Your task to perform on an android device: turn on notifications settings in the gmail app Image 0: 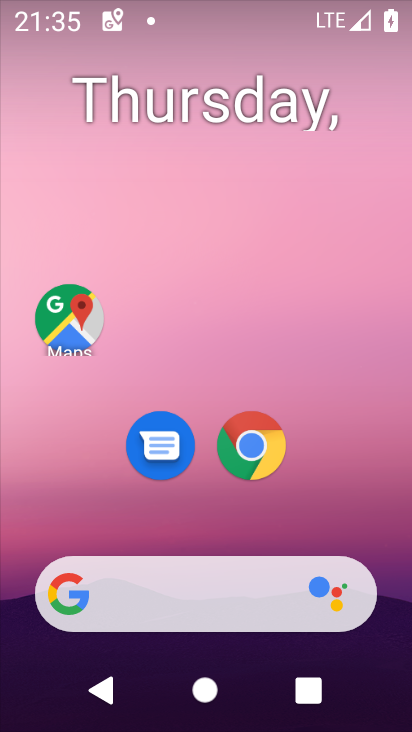
Step 0: drag from (182, 539) to (300, 50)
Your task to perform on an android device: turn on notifications settings in the gmail app Image 1: 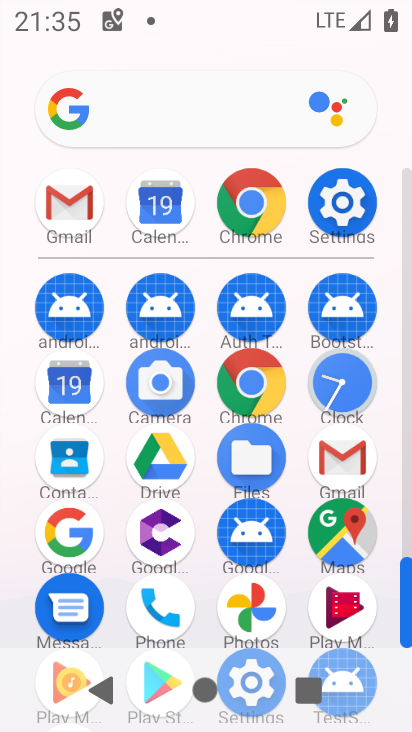
Step 1: click (349, 437)
Your task to perform on an android device: turn on notifications settings in the gmail app Image 2: 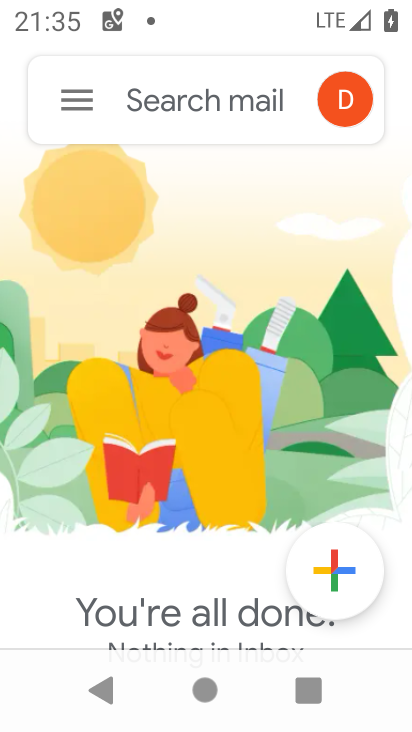
Step 2: click (76, 118)
Your task to perform on an android device: turn on notifications settings in the gmail app Image 3: 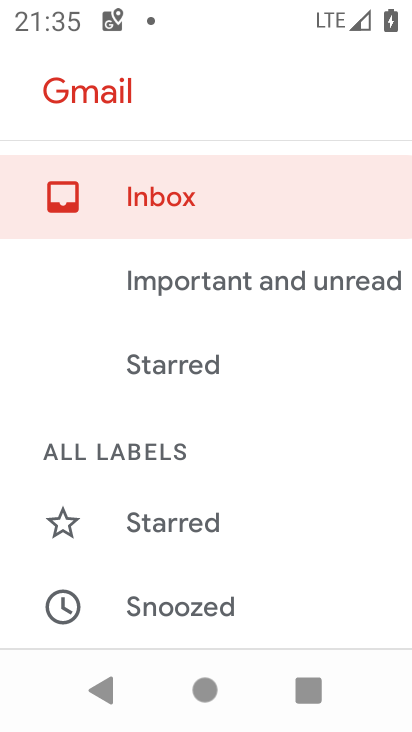
Step 3: drag from (166, 583) to (209, 301)
Your task to perform on an android device: turn on notifications settings in the gmail app Image 4: 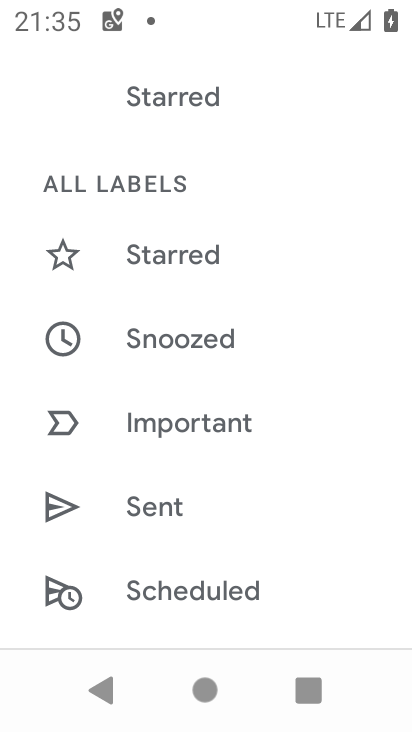
Step 4: drag from (213, 515) to (217, 47)
Your task to perform on an android device: turn on notifications settings in the gmail app Image 5: 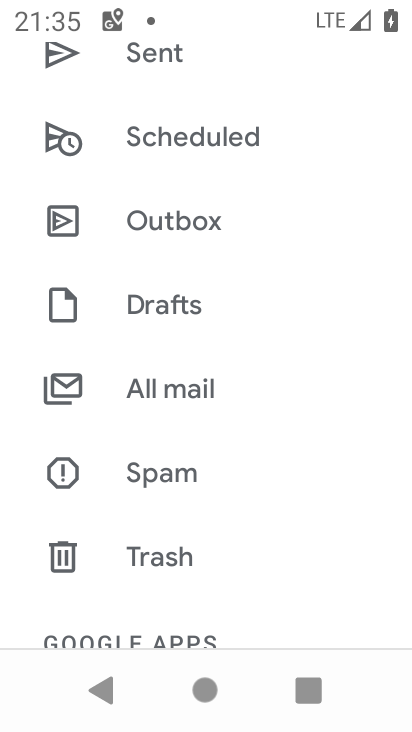
Step 5: drag from (186, 552) to (255, 80)
Your task to perform on an android device: turn on notifications settings in the gmail app Image 6: 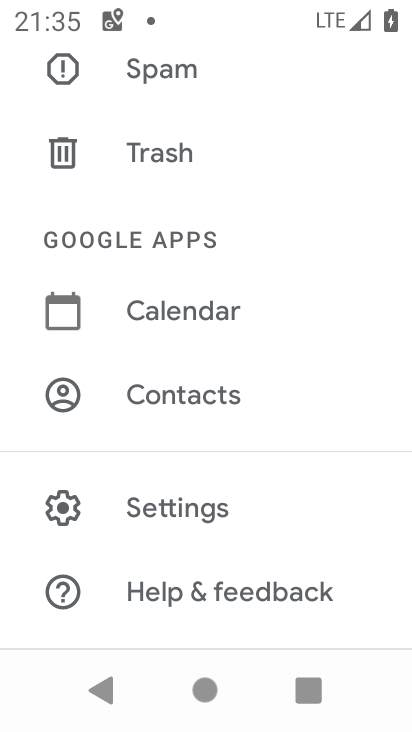
Step 6: click (176, 509)
Your task to perform on an android device: turn on notifications settings in the gmail app Image 7: 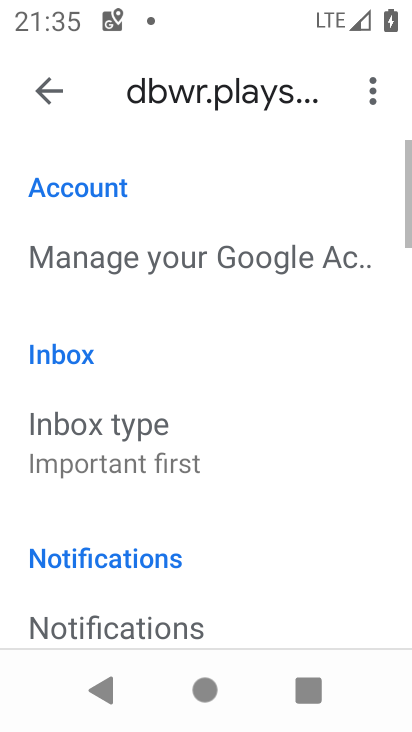
Step 7: drag from (205, 558) to (266, 141)
Your task to perform on an android device: turn on notifications settings in the gmail app Image 8: 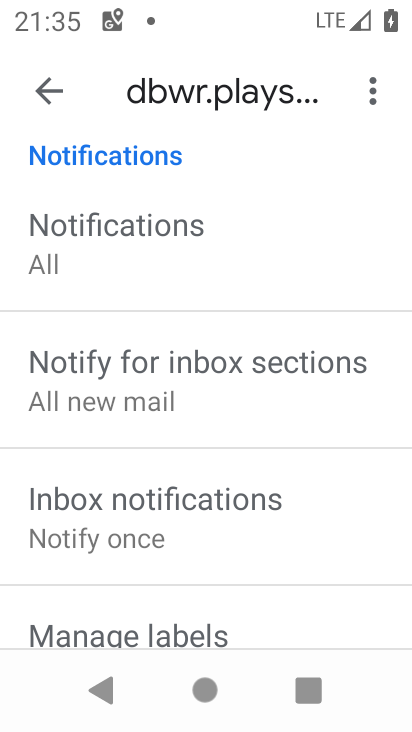
Step 8: drag from (192, 244) to (409, 136)
Your task to perform on an android device: turn on notifications settings in the gmail app Image 9: 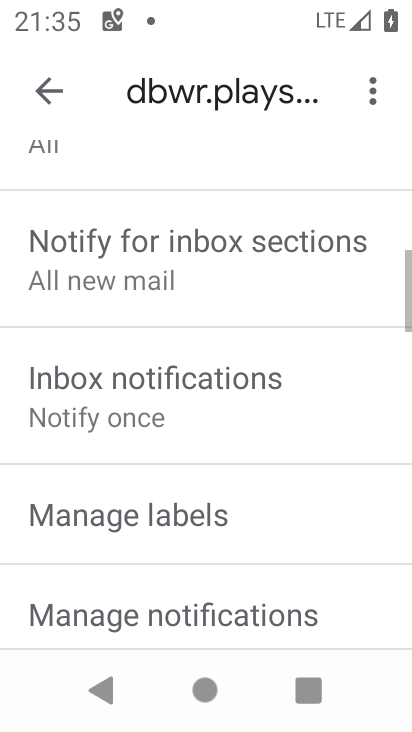
Step 9: click (163, 493)
Your task to perform on an android device: turn on notifications settings in the gmail app Image 10: 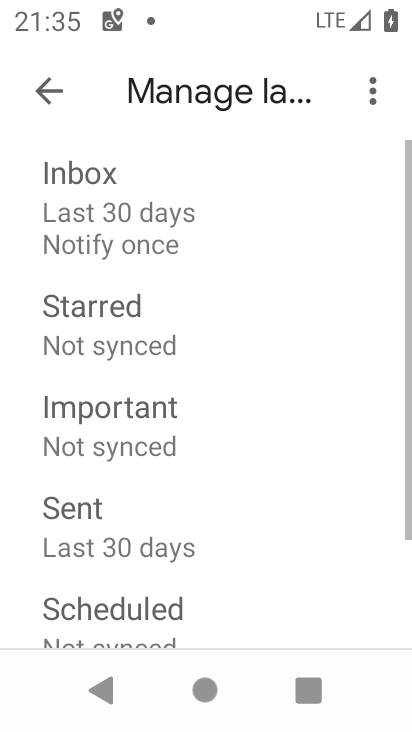
Step 10: click (58, 100)
Your task to perform on an android device: turn on notifications settings in the gmail app Image 11: 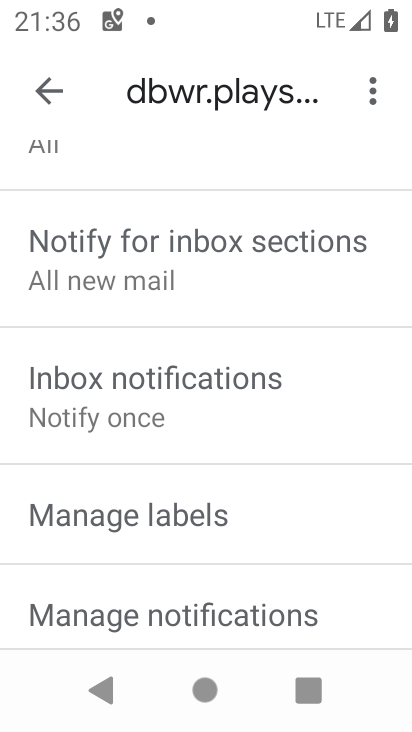
Step 11: click (138, 604)
Your task to perform on an android device: turn on notifications settings in the gmail app Image 12: 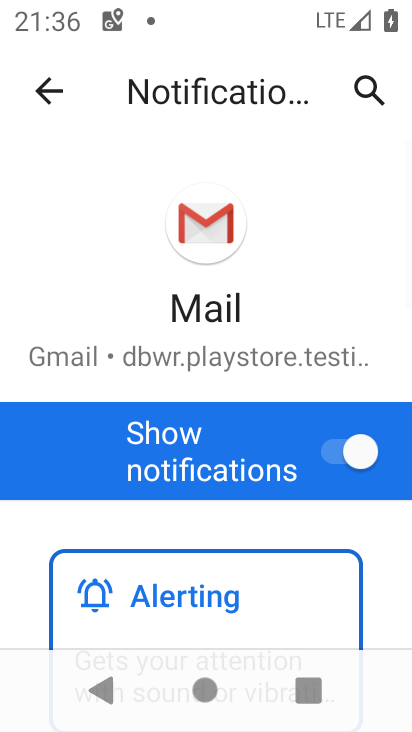
Step 12: task complete